Your task to perform on an android device: turn off improve location accuracy Image 0: 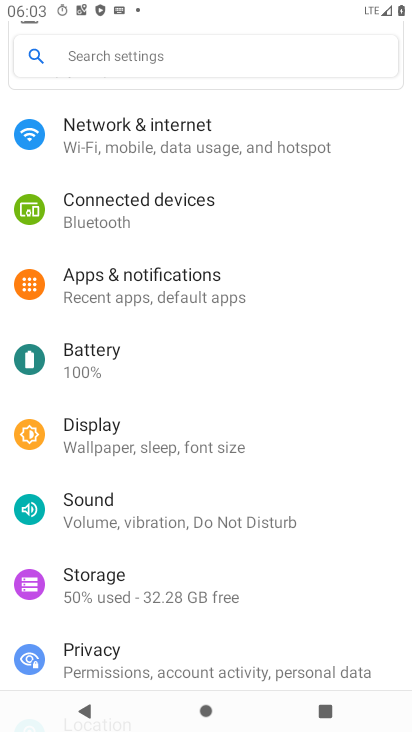
Step 0: press home button
Your task to perform on an android device: turn off improve location accuracy Image 1: 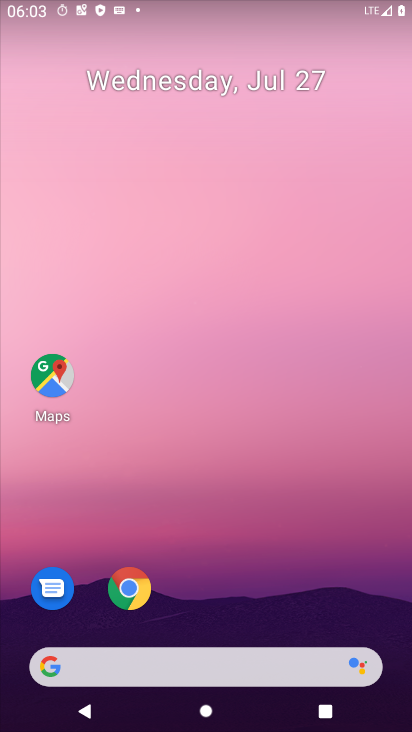
Step 1: drag from (247, 649) to (259, 28)
Your task to perform on an android device: turn off improve location accuracy Image 2: 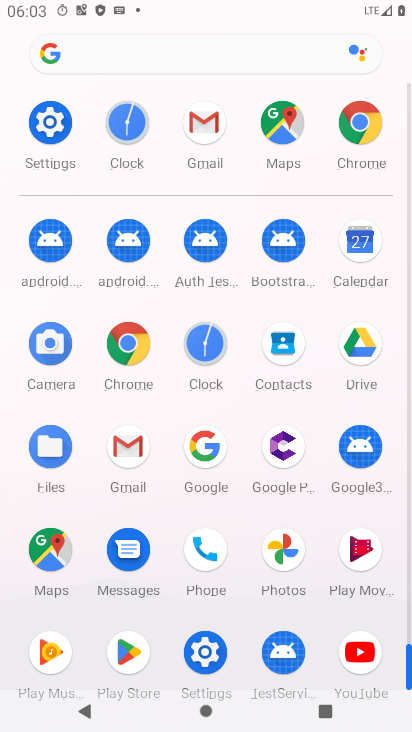
Step 2: click (39, 123)
Your task to perform on an android device: turn off improve location accuracy Image 3: 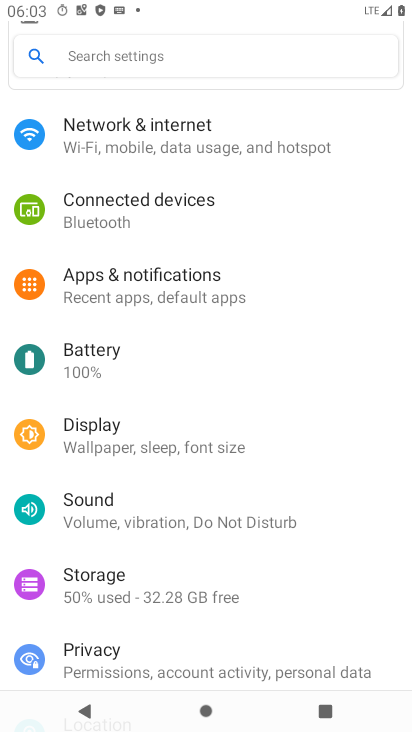
Step 3: drag from (124, 628) to (197, 185)
Your task to perform on an android device: turn off improve location accuracy Image 4: 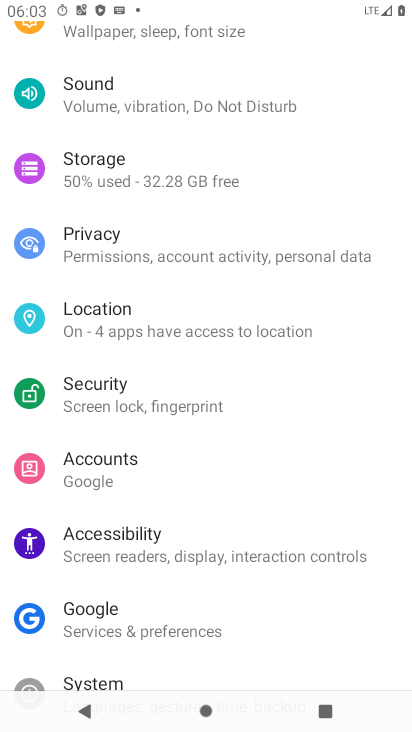
Step 4: click (136, 322)
Your task to perform on an android device: turn off improve location accuracy Image 5: 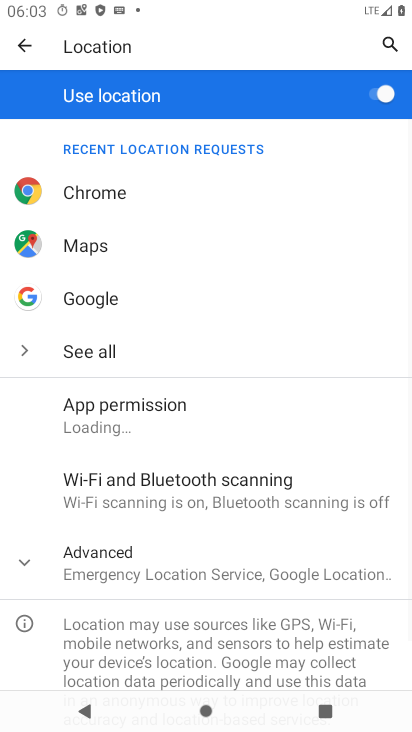
Step 5: click (206, 563)
Your task to perform on an android device: turn off improve location accuracy Image 6: 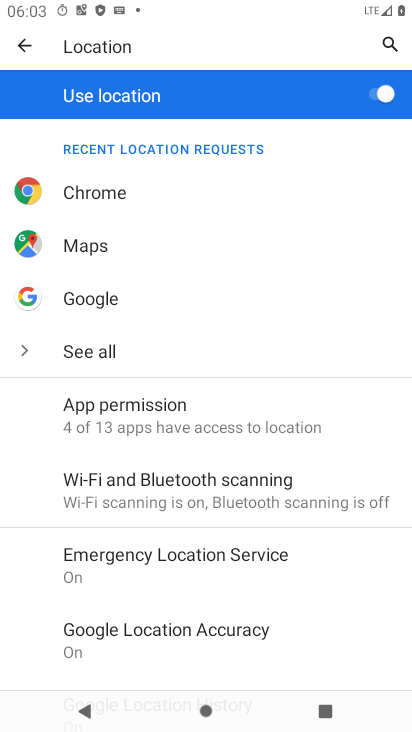
Step 6: click (218, 635)
Your task to perform on an android device: turn off improve location accuracy Image 7: 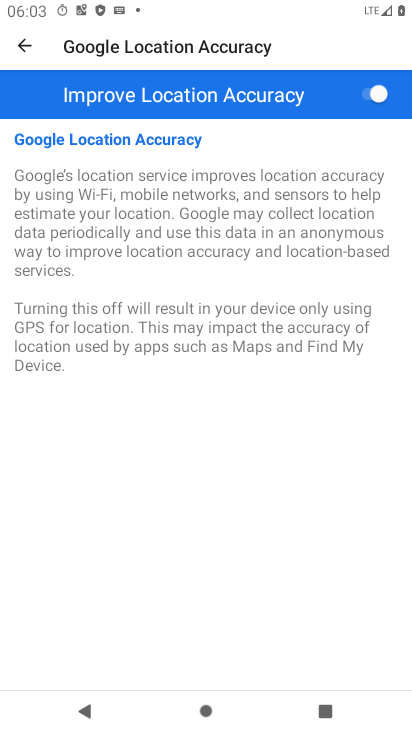
Step 7: click (372, 94)
Your task to perform on an android device: turn off improve location accuracy Image 8: 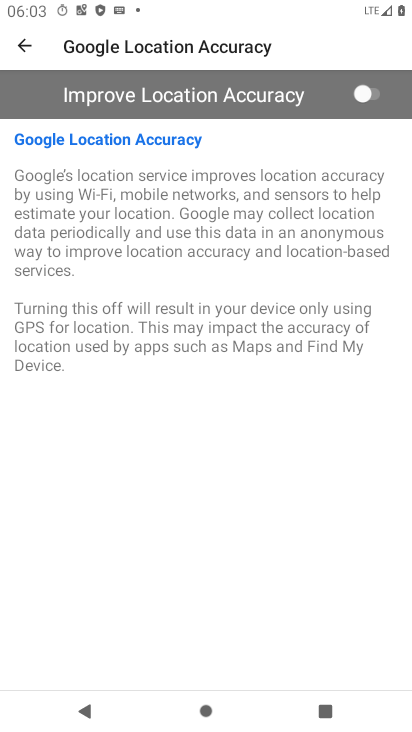
Step 8: task complete